Your task to perform on an android device: turn off location history Image 0: 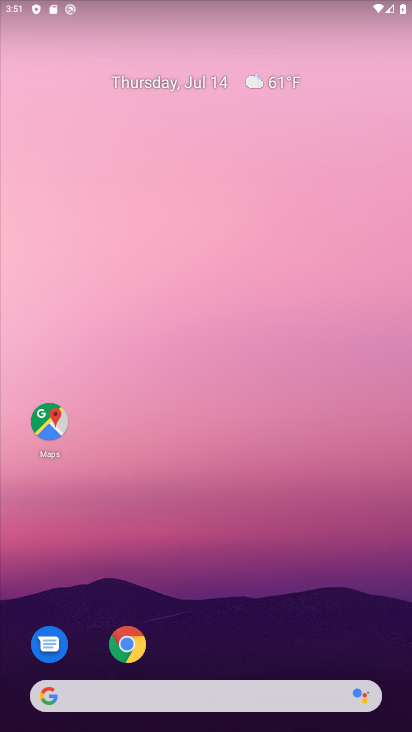
Step 0: click (55, 426)
Your task to perform on an android device: turn off location history Image 1: 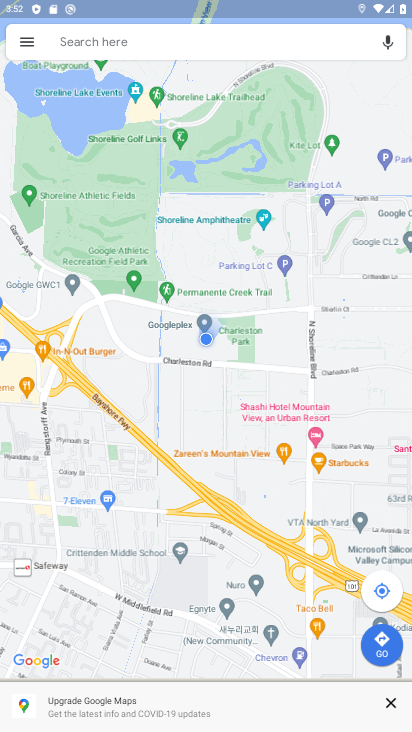
Step 1: click (31, 46)
Your task to perform on an android device: turn off location history Image 2: 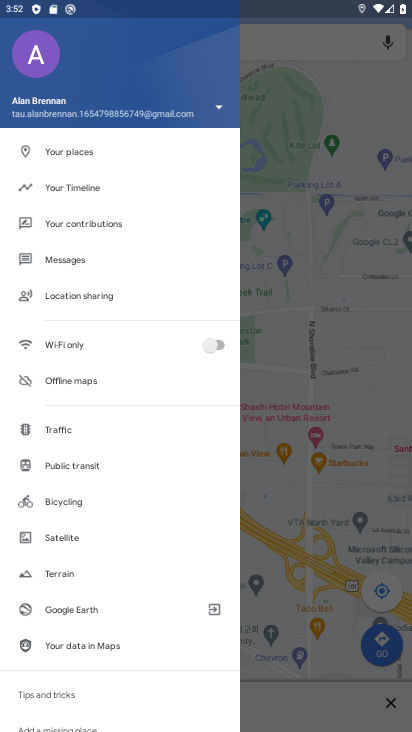
Step 2: click (80, 184)
Your task to perform on an android device: turn off location history Image 3: 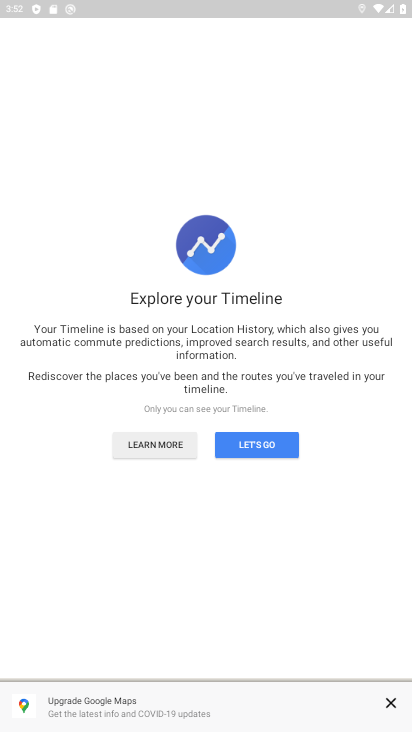
Step 3: click (253, 438)
Your task to perform on an android device: turn off location history Image 4: 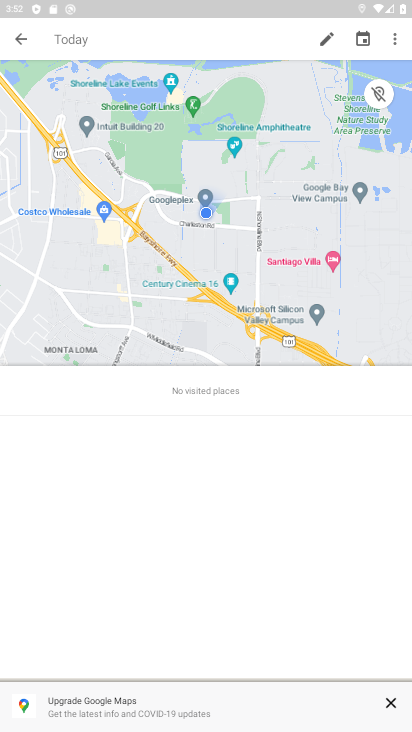
Step 4: click (397, 33)
Your task to perform on an android device: turn off location history Image 5: 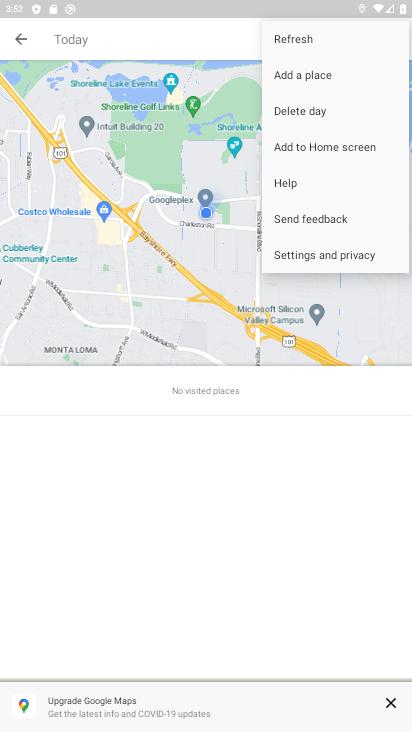
Step 5: click (321, 254)
Your task to perform on an android device: turn off location history Image 6: 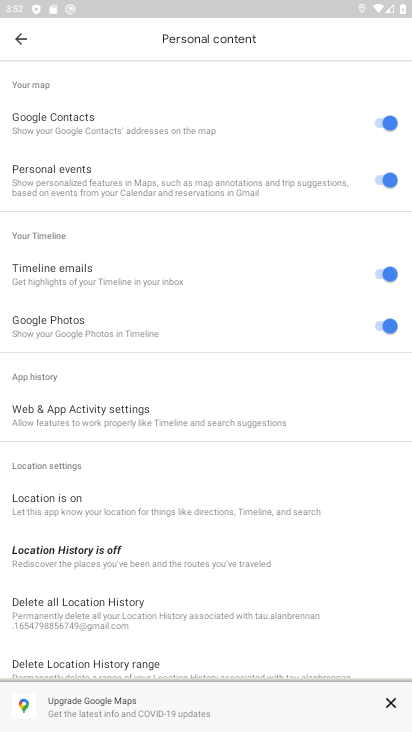
Step 6: click (96, 556)
Your task to perform on an android device: turn off location history Image 7: 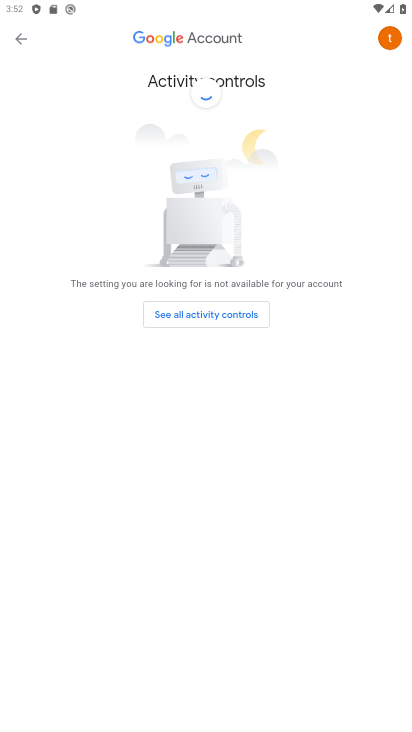
Step 7: click (221, 311)
Your task to perform on an android device: turn off location history Image 8: 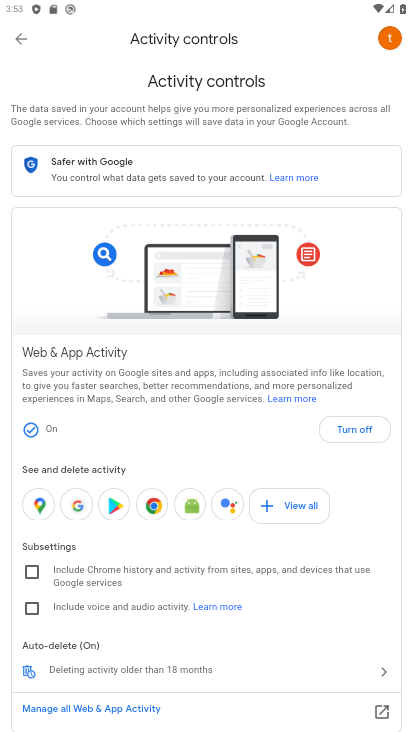
Step 8: click (366, 431)
Your task to perform on an android device: turn off location history Image 9: 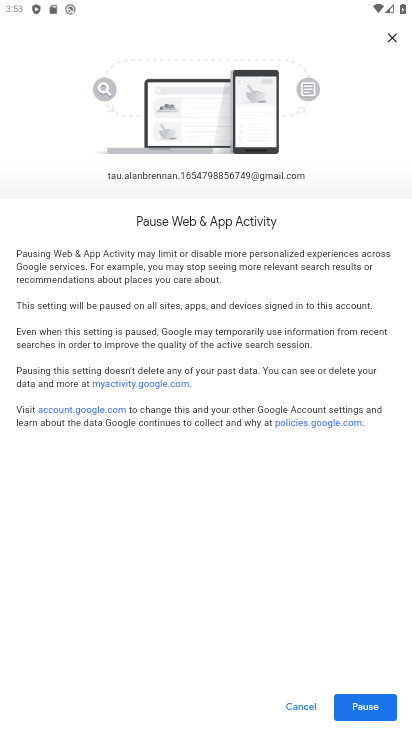
Step 9: click (370, 704)
Your task to perform on an android device: turn off location history Image 10: 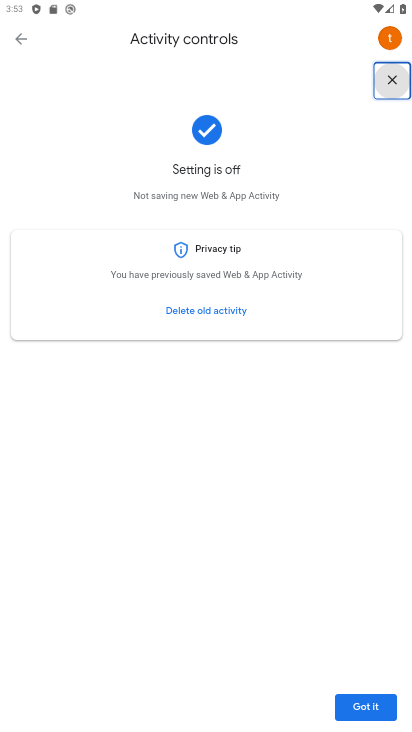
Step 10: click (365, 701)
Your task to perform on an android device: turn off location history Image 11: 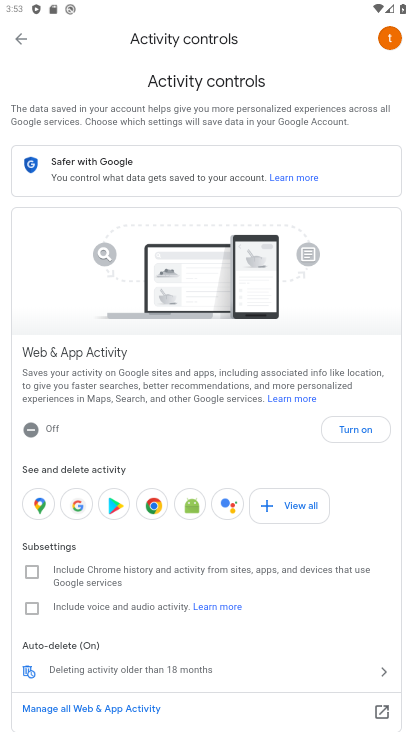
Step 11: task complete